Your task to perform on an android device: Open the stopwatch Image 0: 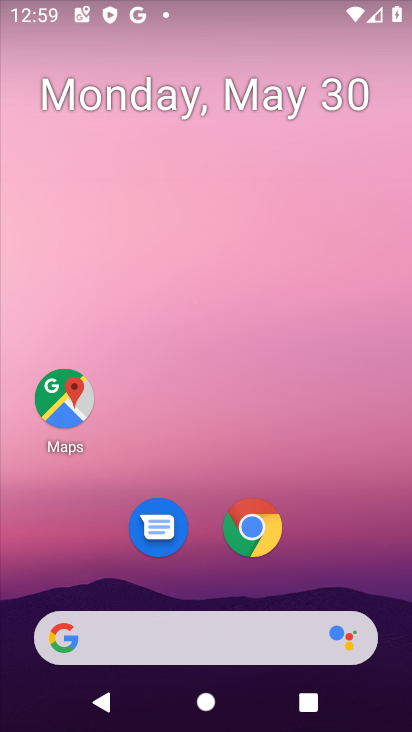
Step 0: drag from (392, 590) to (250, 156)
Your task to perform on an android device: Open the stopwatch Image 1: 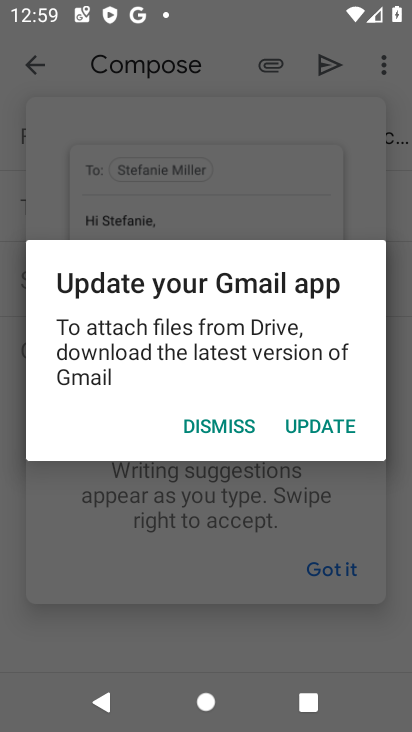
Step 1: press home button
Your task to perform on an android device: Open the stopwatch Image 2: 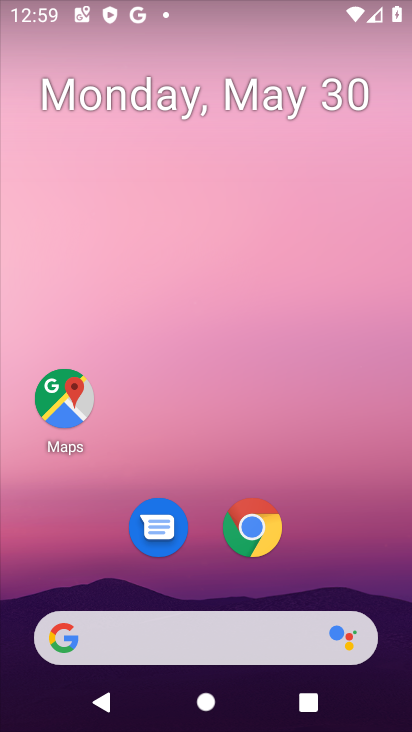
Step 2: drag from (367, 547) to (277, 54)
Your task to perform on an android device: Open the stopwatch Image 3: 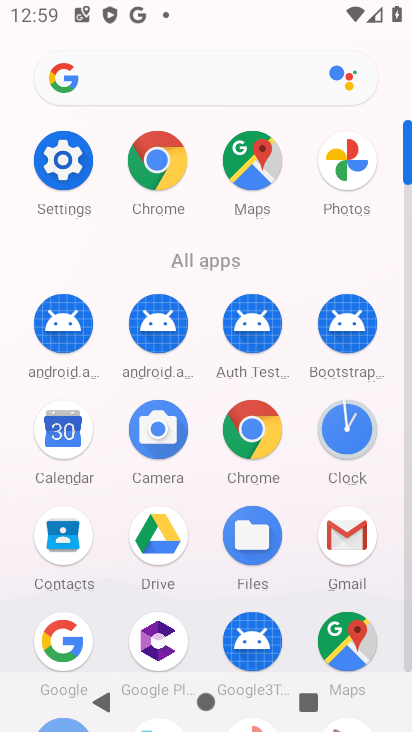
Step 3: click (351, 453)
Your task to perform on an android device: Open the stopwatch Image 4: 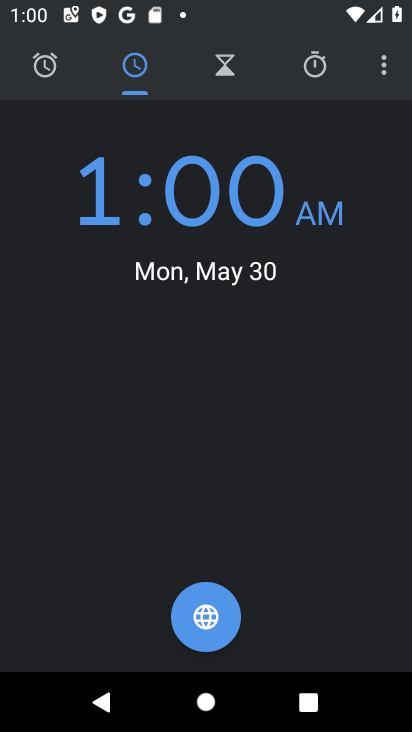
Step 4: click (319, 70)
Your task to perform on an android device: Open the stopwatch Image 5: 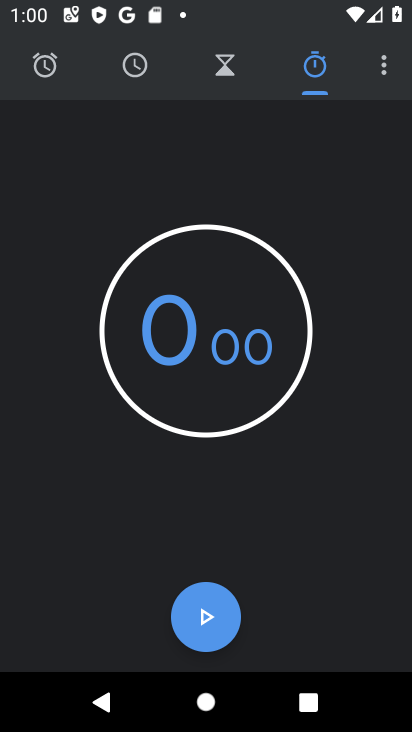
Step 5: task complete